Your task to perform on an android device: add a contact in the contacts app Image 0: 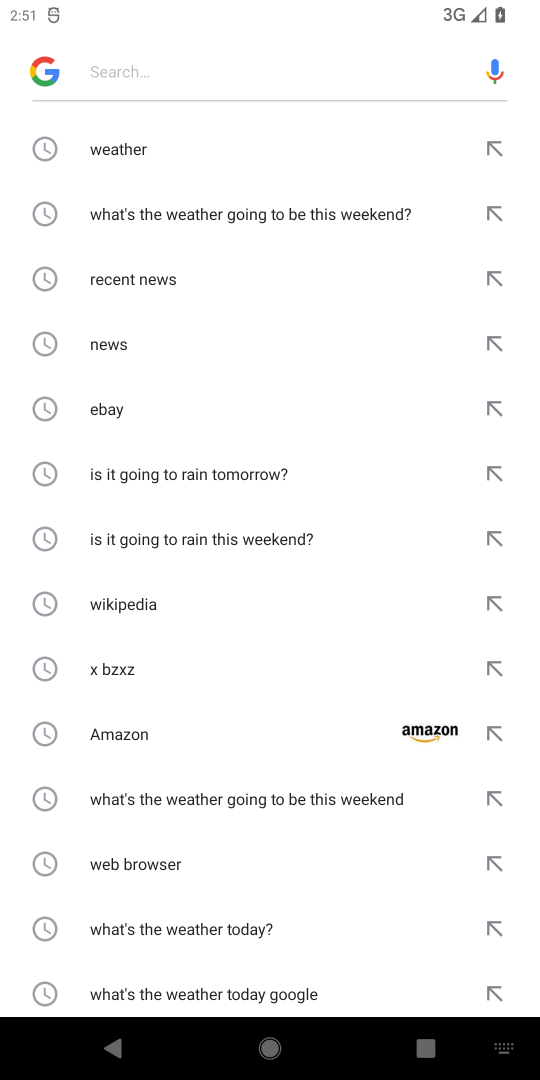
Step 0: press home button
Your task to perform on an android device: add a contact in the contacts app Image 1: 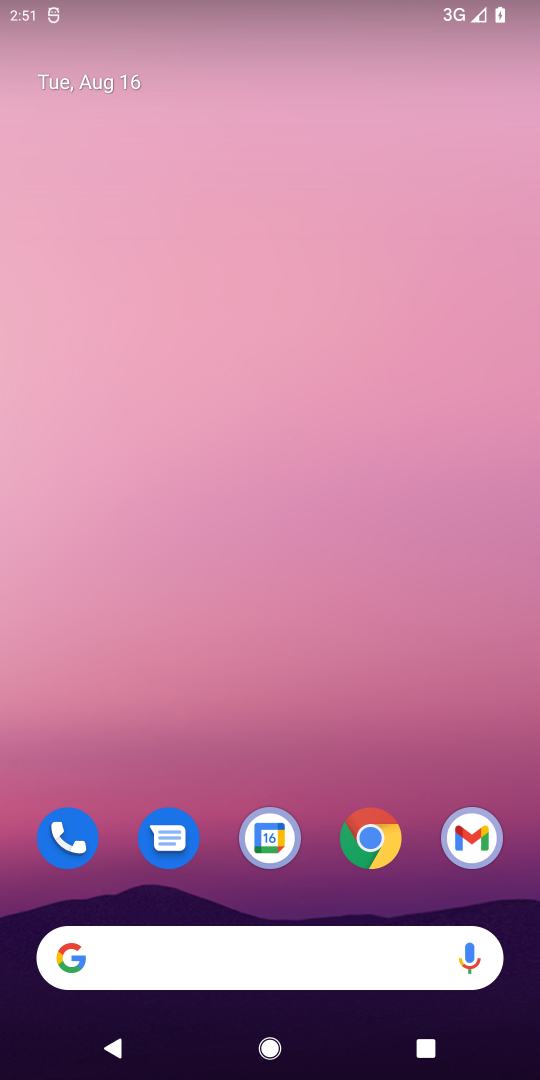
Step 1: drag from (340, 754) to (278, 21)
Your task to perform on an android device: add a contact in the contacts app Image 2: 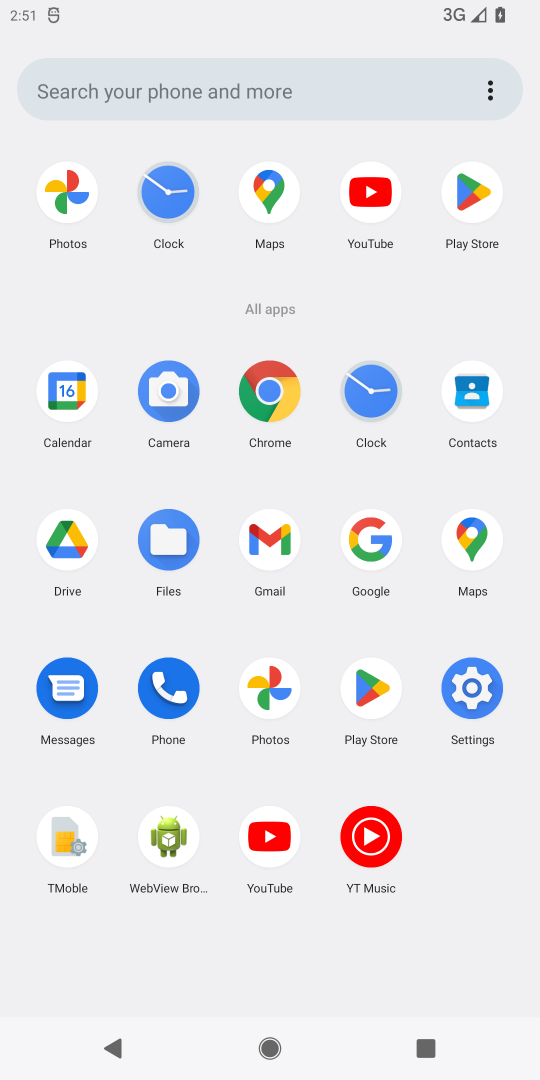
Step 2: click (464, 405)
Your task to perform on an android device: add a contact in the contacts app Image 3: 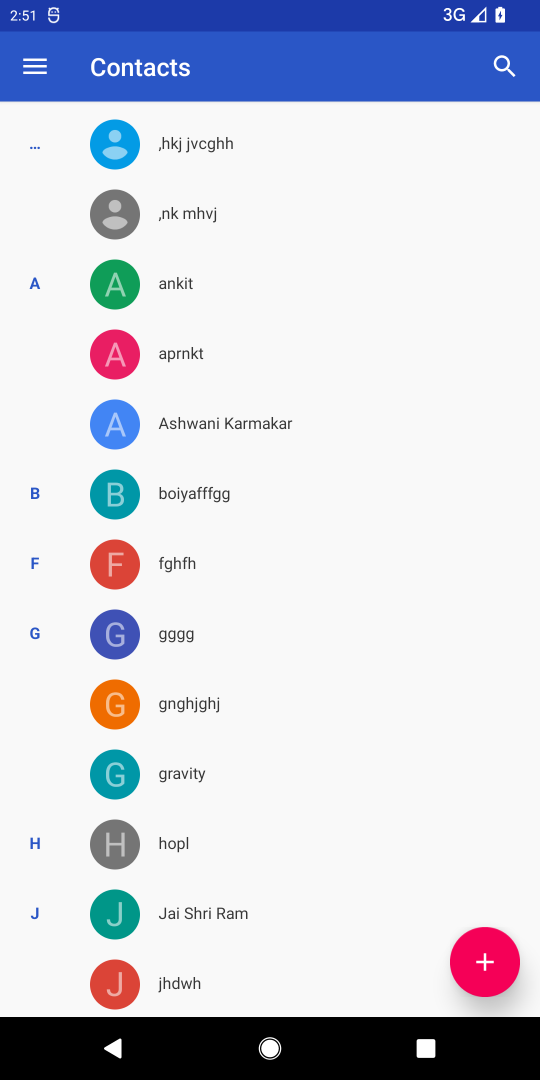
Step 3: click (473, 969)
Your task to perform on an android device: add a contact in the contacts app Image 4: 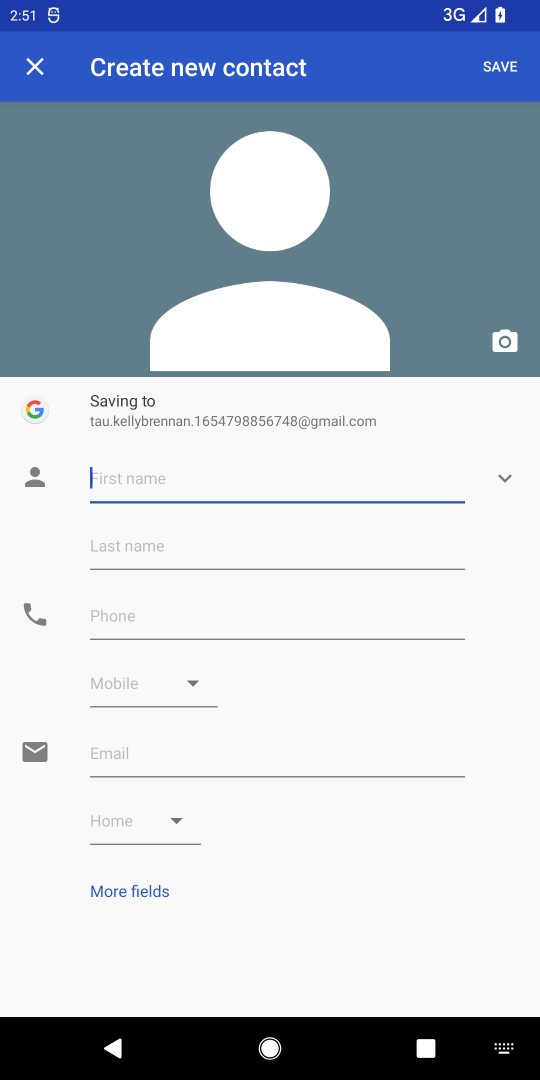
Step 4: click (175, 469)
Your task to perform on an android device: add a contact in the contacts app Image 5: 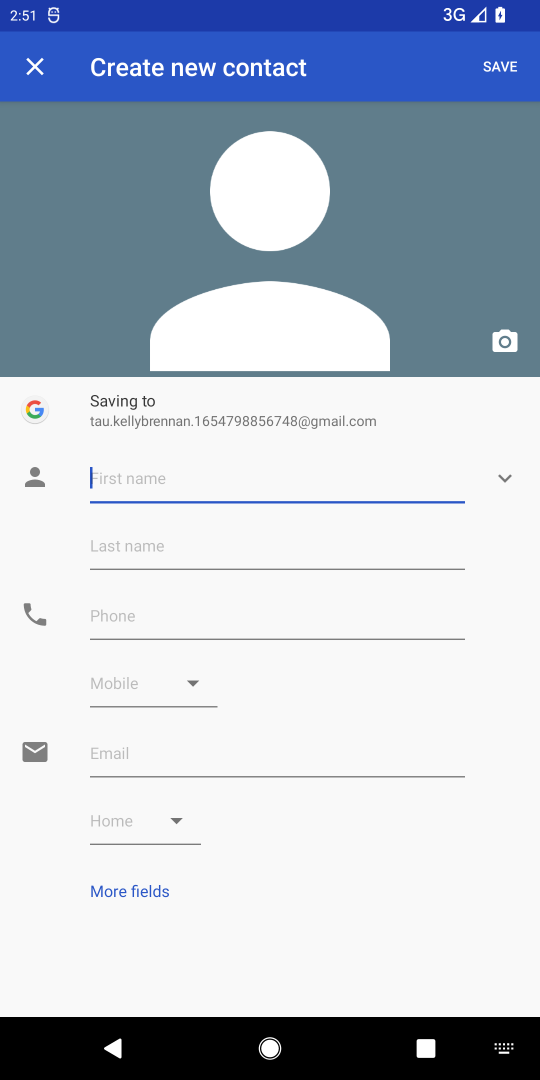
Step 5: type "hcghgchghgcgh"
Your task to perform on an android device: add a contact in the contacts app Image 6: 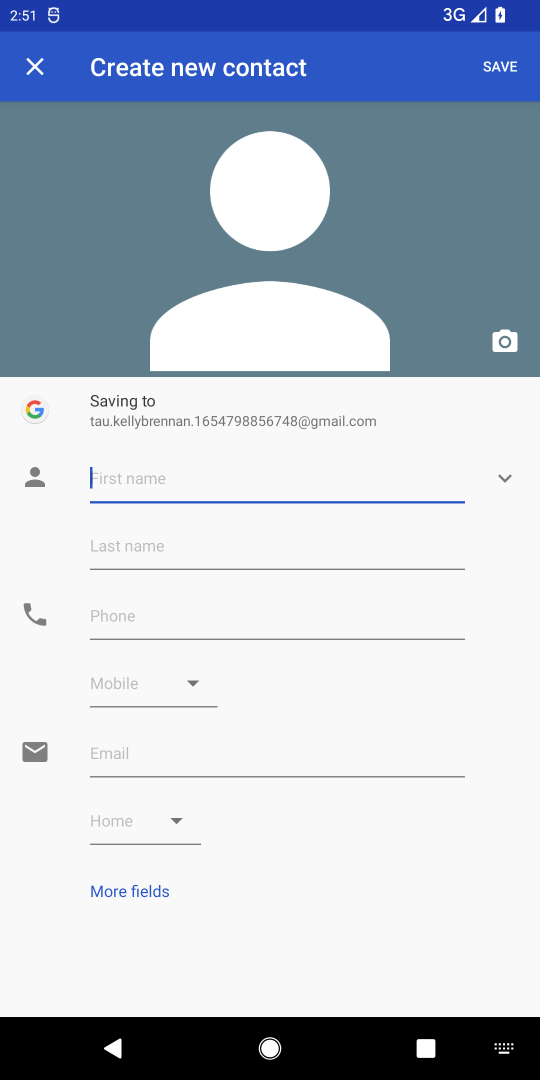
Step 6: click (226, 477)
Your task to perform on an android device: add a contact in the contacts app Image 7: 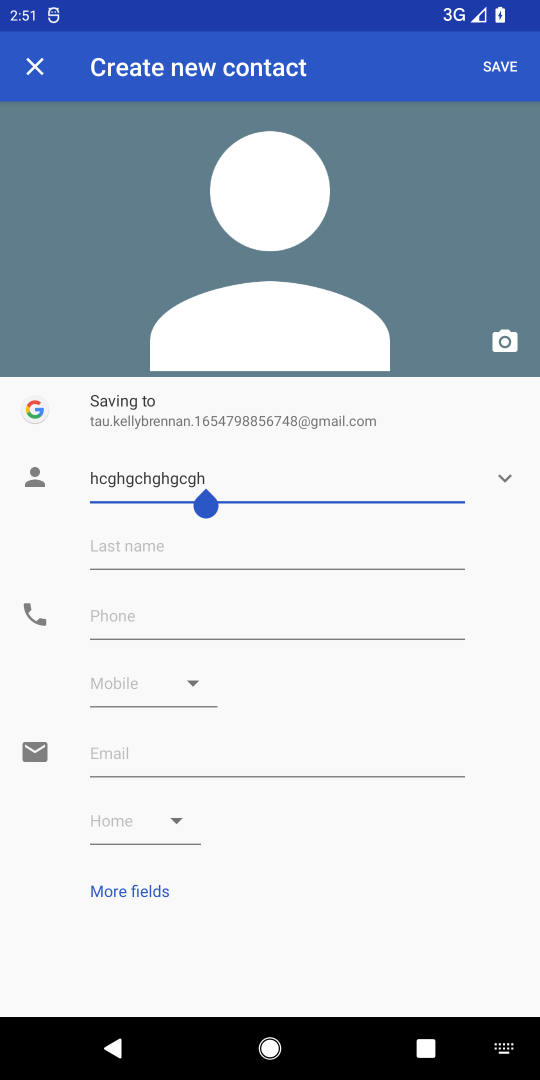
Step 7: click (192, 617)
Your task to perform on an android device: add a contact in the contacts app Image 8: 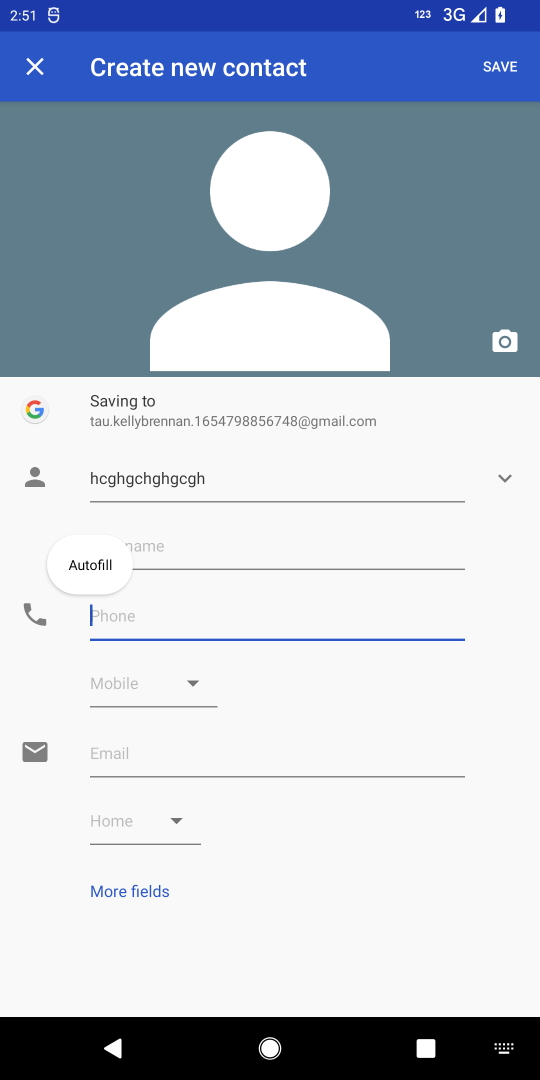
Step 8: type "564657444444444"
Your task to perform on an android device: add a contact in the contacts app Image 9: 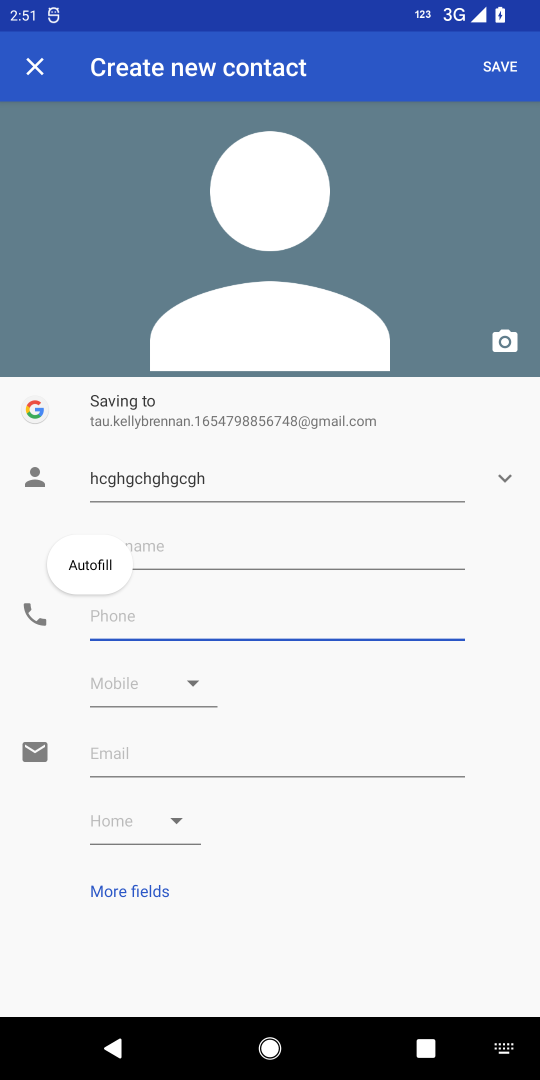
Step 9: click (182, 606)
Your task to perform on an android device: add a contact in the contacts app Image 10: 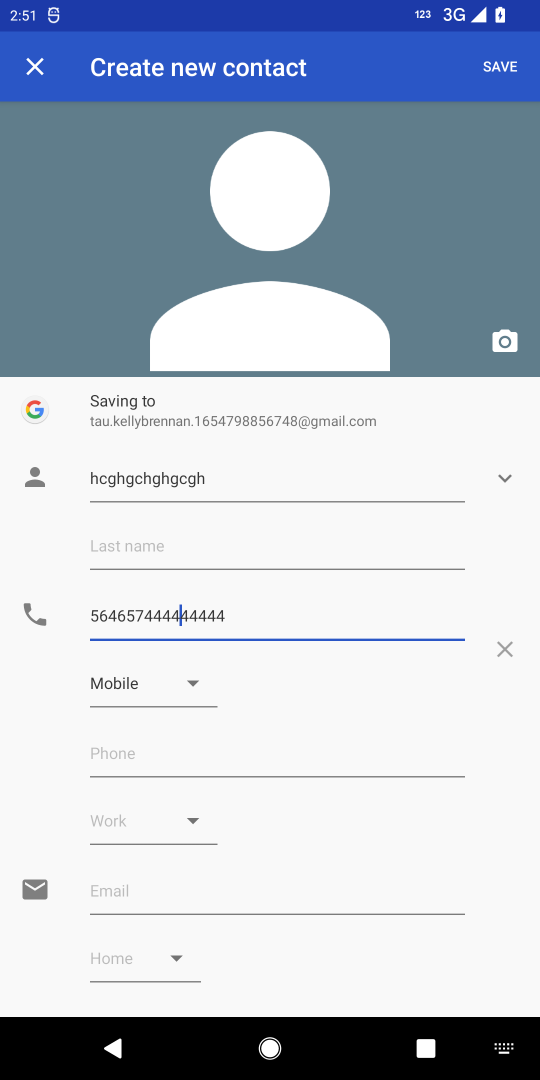
Step 10: click (486, 79)
Your task to perform on an android device: add a contact in the contacts app Image 11: 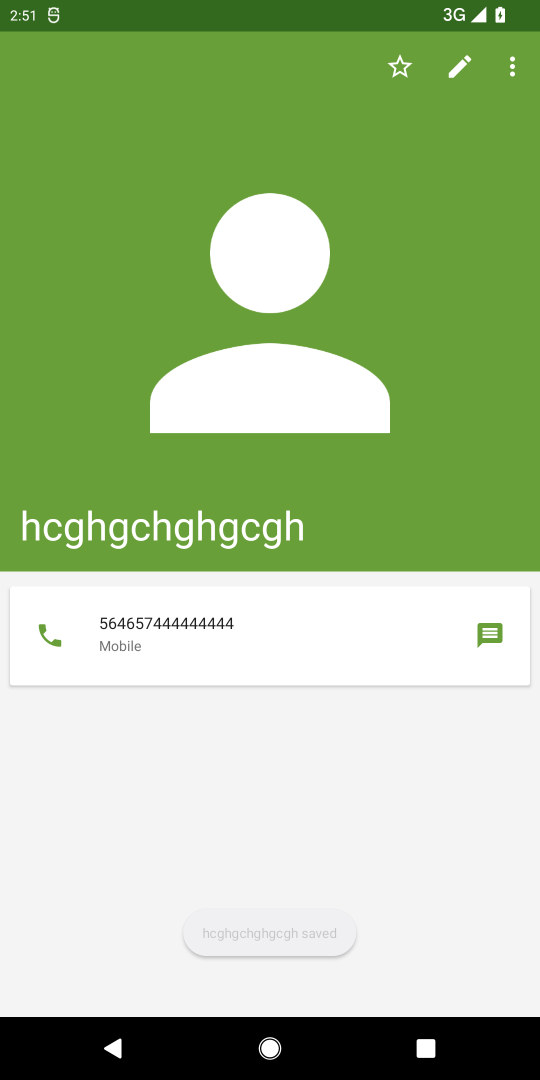
Step 11: task complete